Your task to perform on an android device: turn notification dots off Image 0: 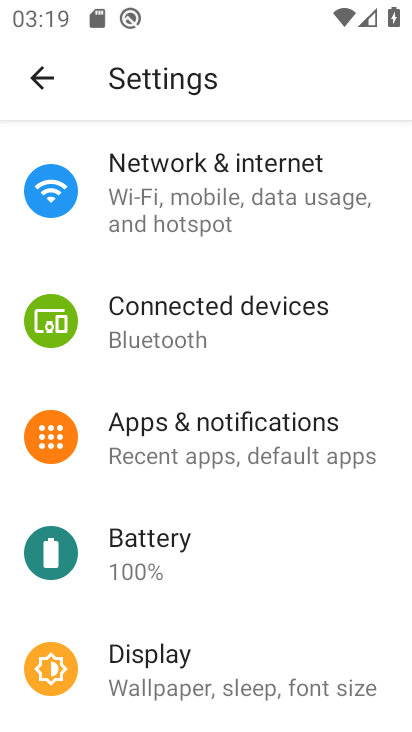
Step 0: click (264, 422)
Your task to perform on an android device: turn notification dots off Image 1: 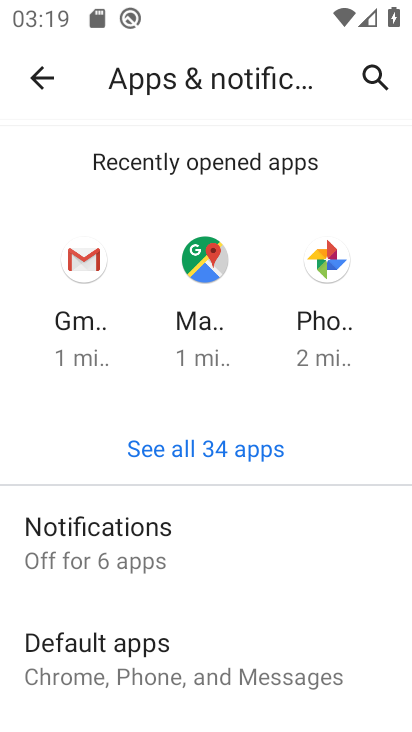
Step 1: drag from (194, 608) to (124, 99)
Your task to perform on an android device: turn notification dots off Image 2: 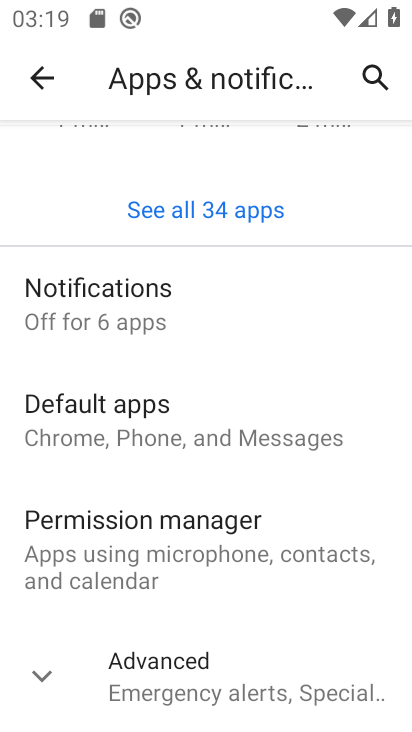
Step 2: click (137, 291)
Your task to perform on an android device: turn notification dots off Image 3: 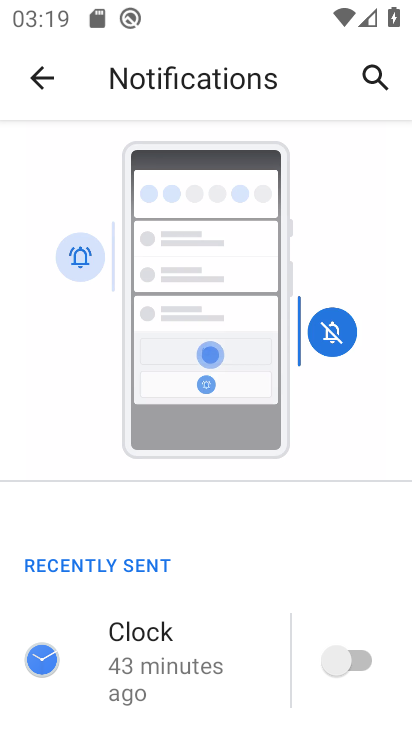
Step 3: drag from (197, 678) to (156, 114)
Your task to perform on an android device: turn notification dots off Image 4: 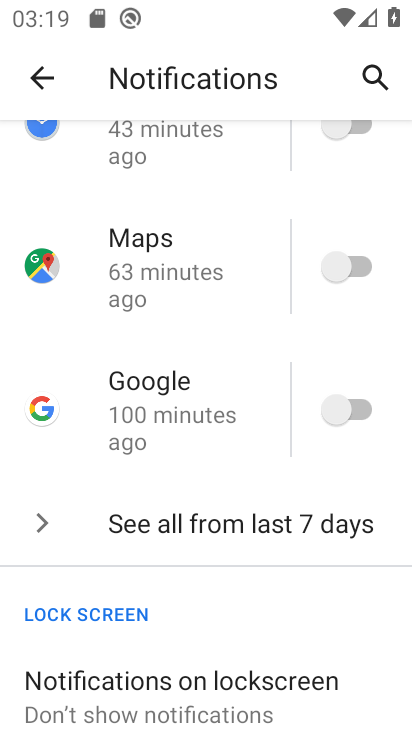
Step 4: drag from (191, 690) to (190, 326)
Your task to perform on an android device: turn notification dots off Image 5: 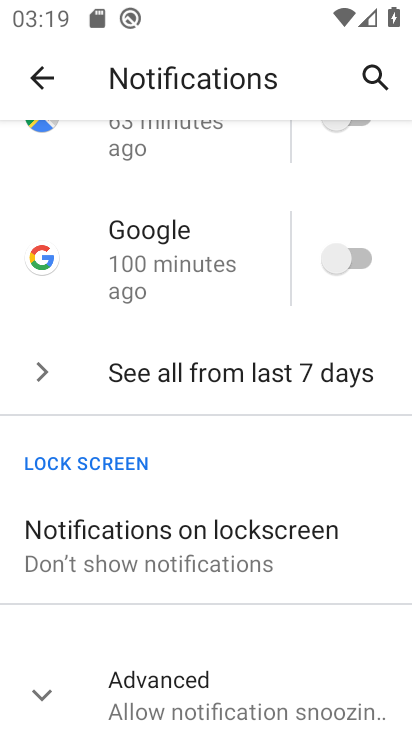
Step 5: click (184, 529)
Your task to perform on an android device: turn notification dots off Image 6: 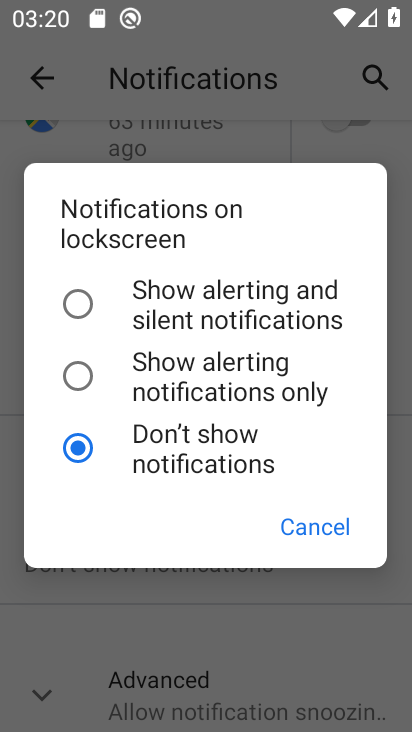
Step 6: click (324, 528)
Your task to perform on an android device: turn notification dots off Image 7: 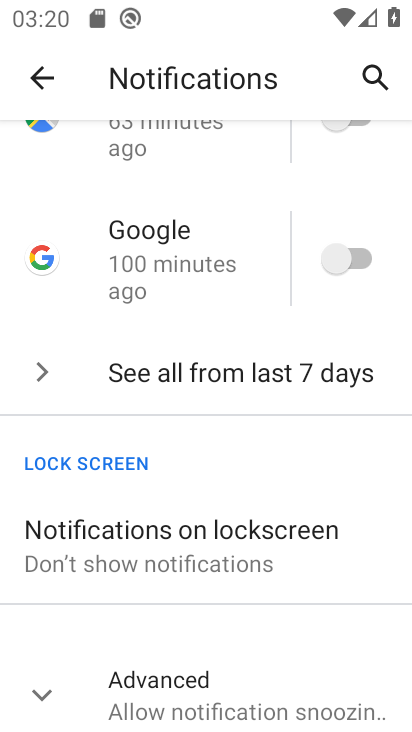
Step 7: click (243, 694)
Your task to perform on an android device: turn notification dots off Image 8: 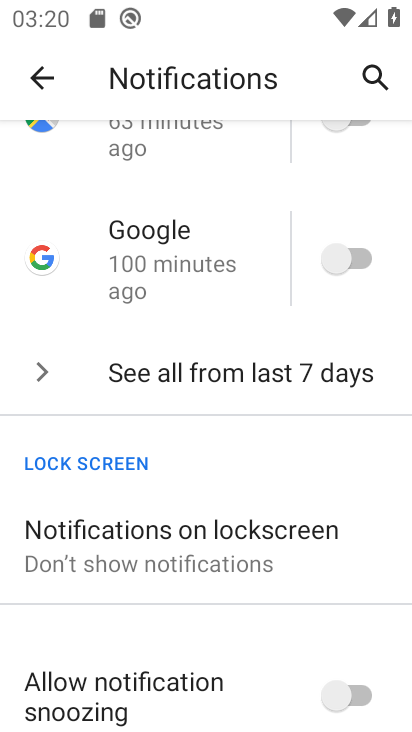
Step 8: drag from (192, 668) to (202, 130)
Your task to perform on an android device: turn notification dots off Image 9: 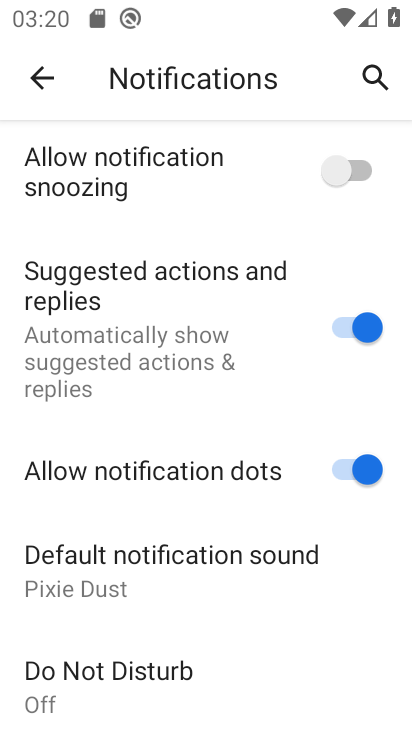
Step 9: click (338, 466)
Your task to perform on an android device: turn notification dots off Image 10: 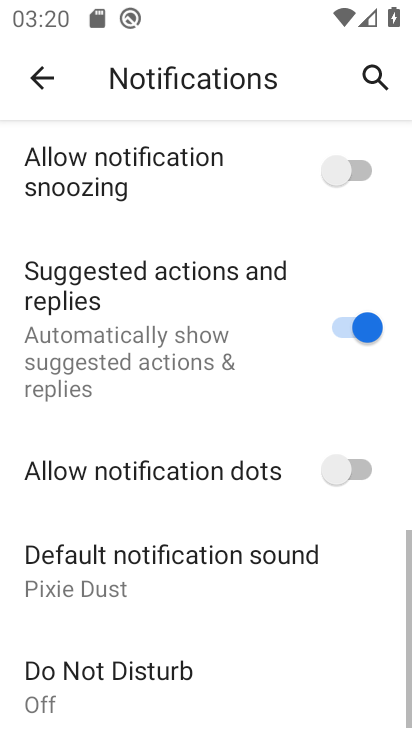
Step 10: task complete